Your task to perform on an android device: Open location settings Image 0: 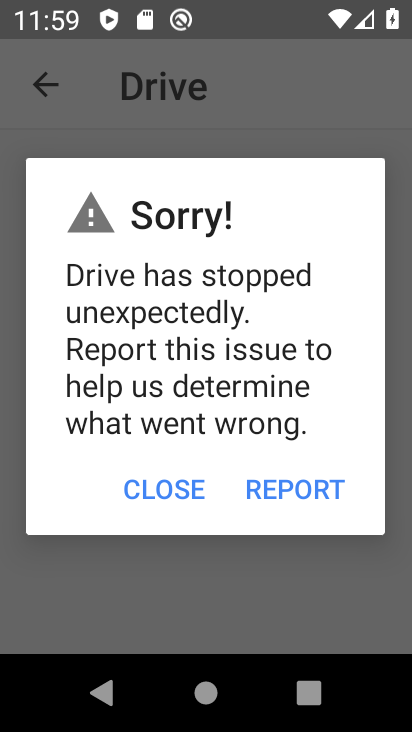
Step 0: press home button
Your task to perform on an android device: Open location settings Image 1: 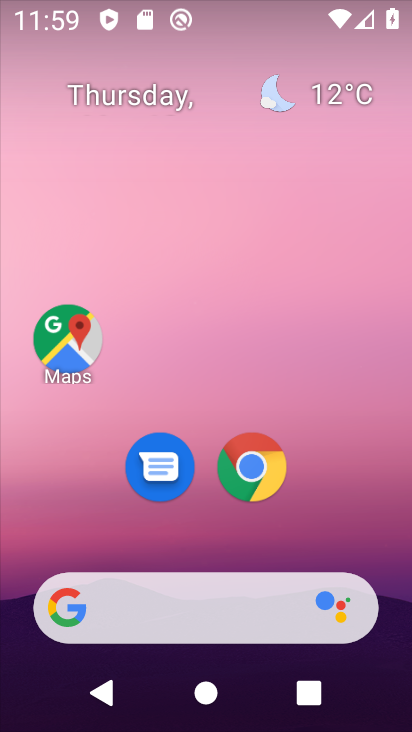
Step 1: drag from (341, 505) to (253, 23)
Your task to perform on an android device: Open location settings Image 2: 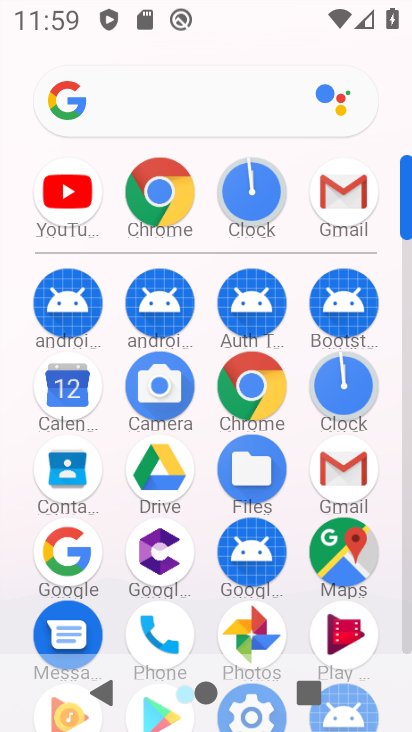
Step 2: drag from (386, 601) to (369, 262)
Your task to perform on an android device: Open location settings Image 3: 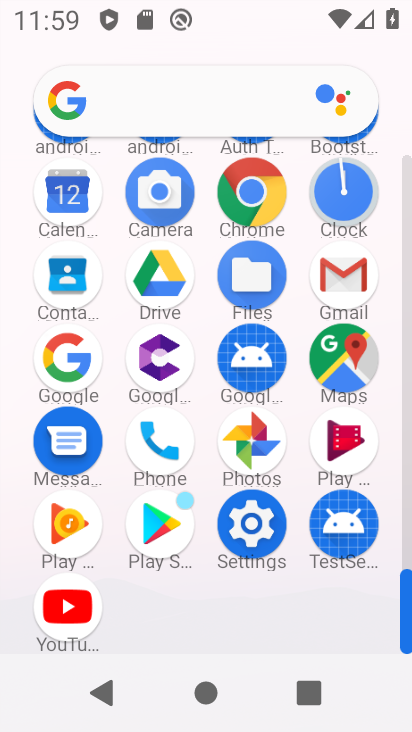
Step 3: click (257, 530)
Your task to perform on an android device: Open location settings Image 4: 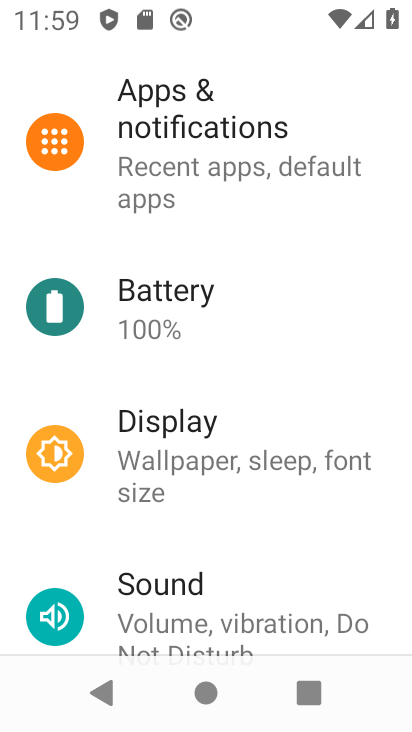
Step 4: drag from (257, 530) to (240, 118)
Your task to perform on an android device: Open location settings Image 5: 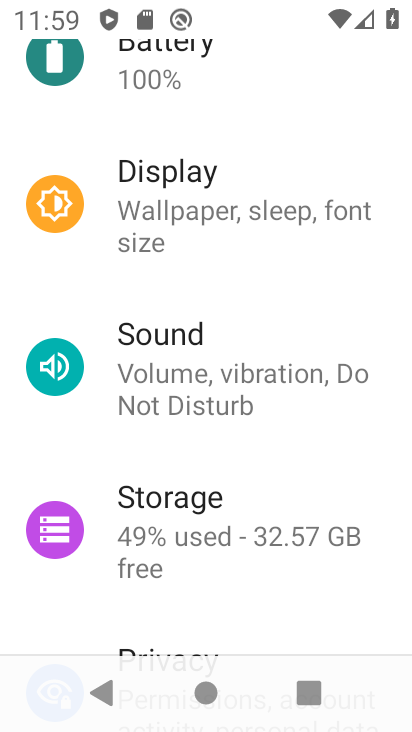
Step 5: drag from (259, 574) to (224, 177)
Your task to perform on an android device: Open location settings Image 6: 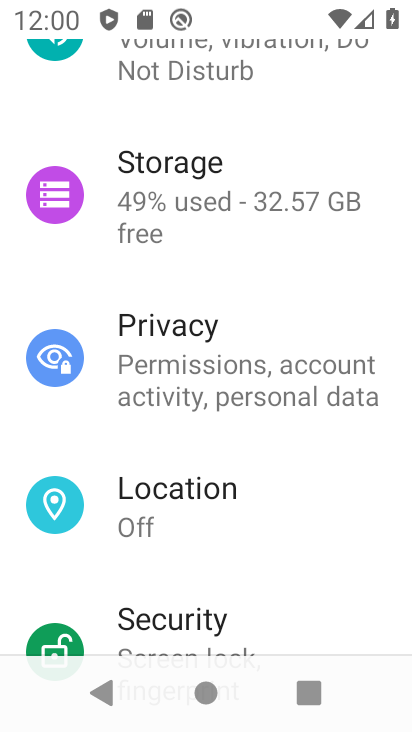
Step 6: click (220, 516)
Your task to perform on an android device: Open location settings Image 7: 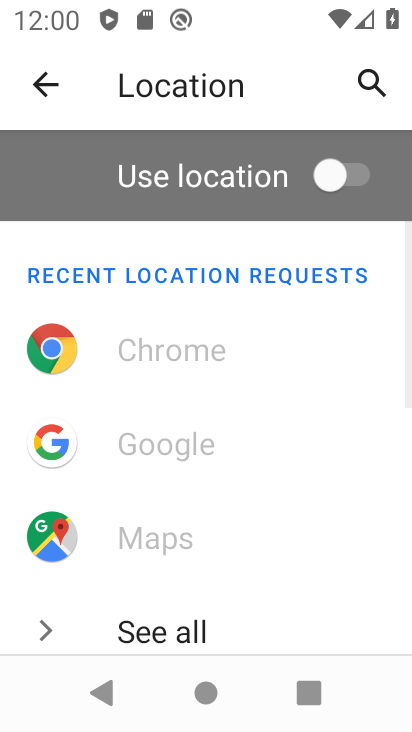
Step 7: task complete